Your task to perform on an android device: open app "VLC for Android" Image 0: 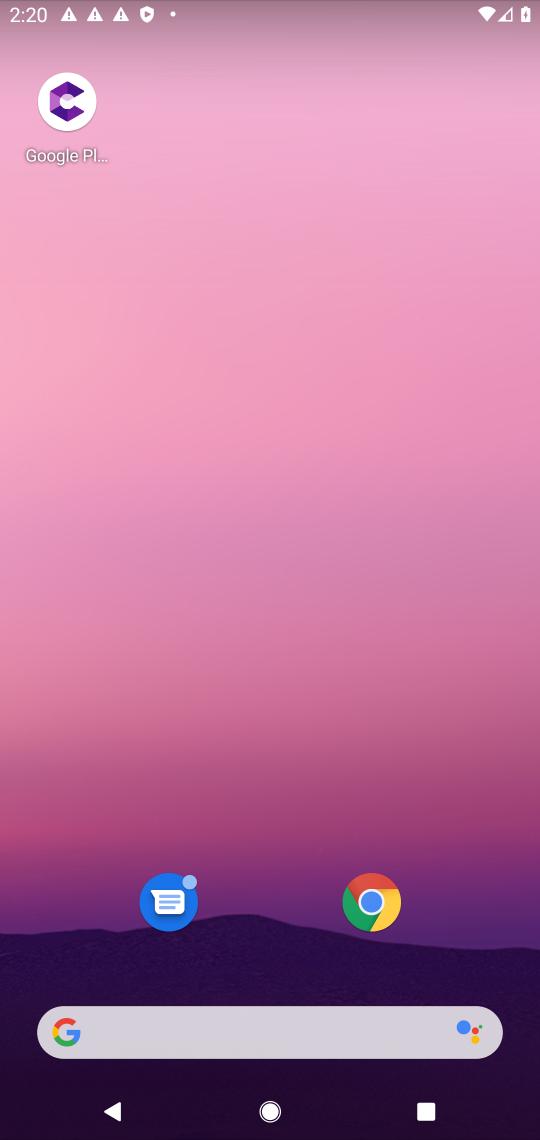
Step 0: drag from (277, 909) to (539, 248)
Your task to perform on an android device: open app "VLC for Android" Image 1: 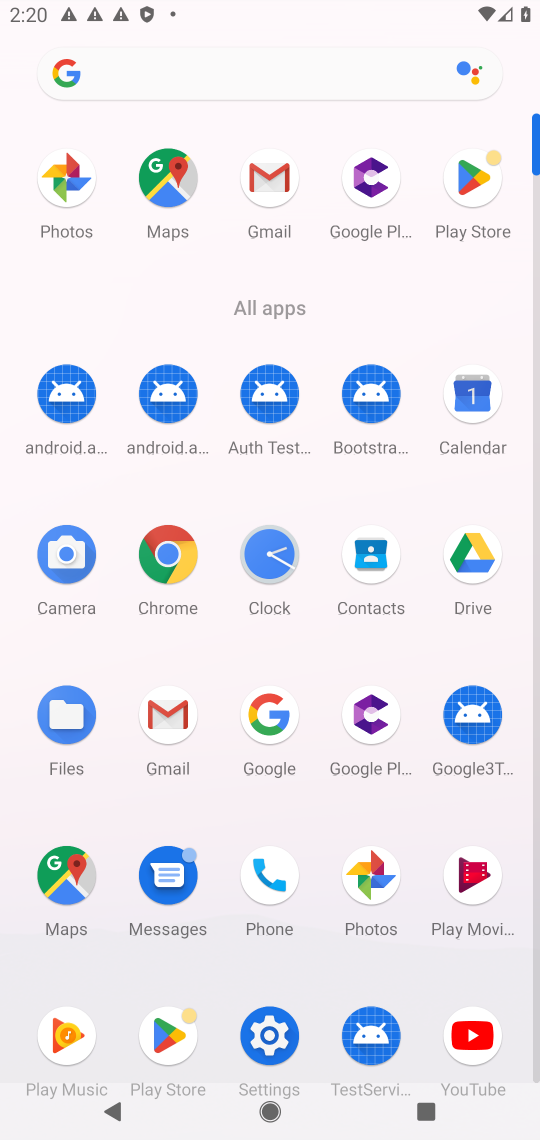
Step 1: click (476, 188)
Your task to perform on an android device: open app "VLC for Android" Image 2: 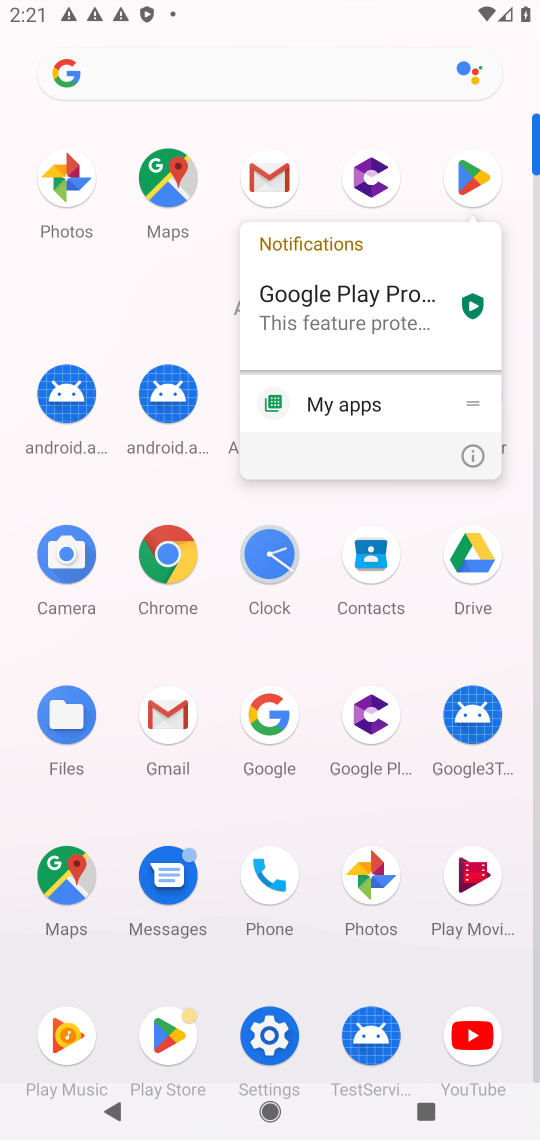
Step 2: click (461, 183)
Your task to perform on an android device: open app "VLC for Android" Image 3: 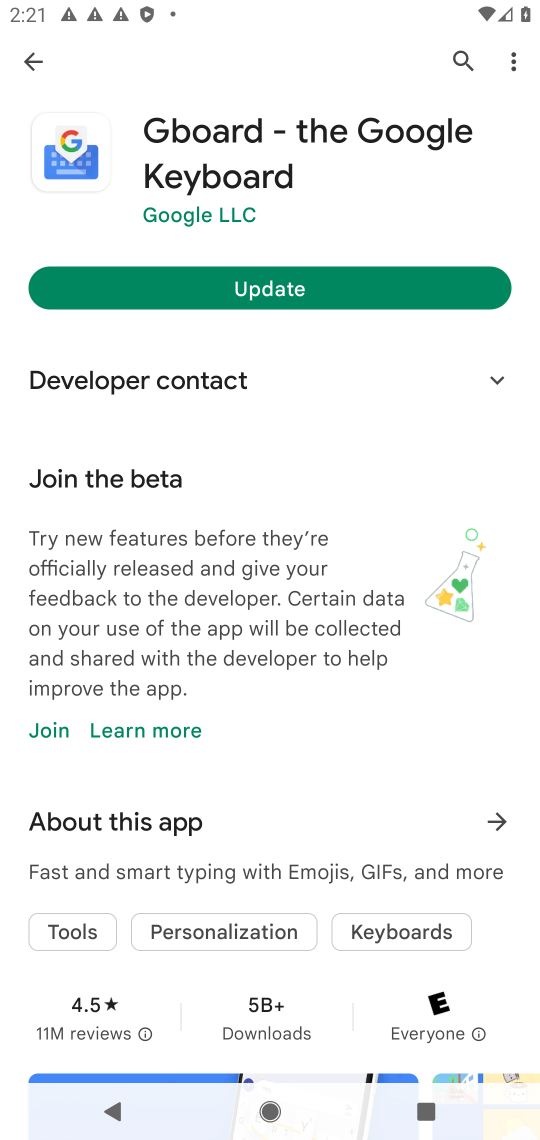
Step 3: click (467, 66)
Your task to perform on an android device: open app "VLC for Android" Image 4: 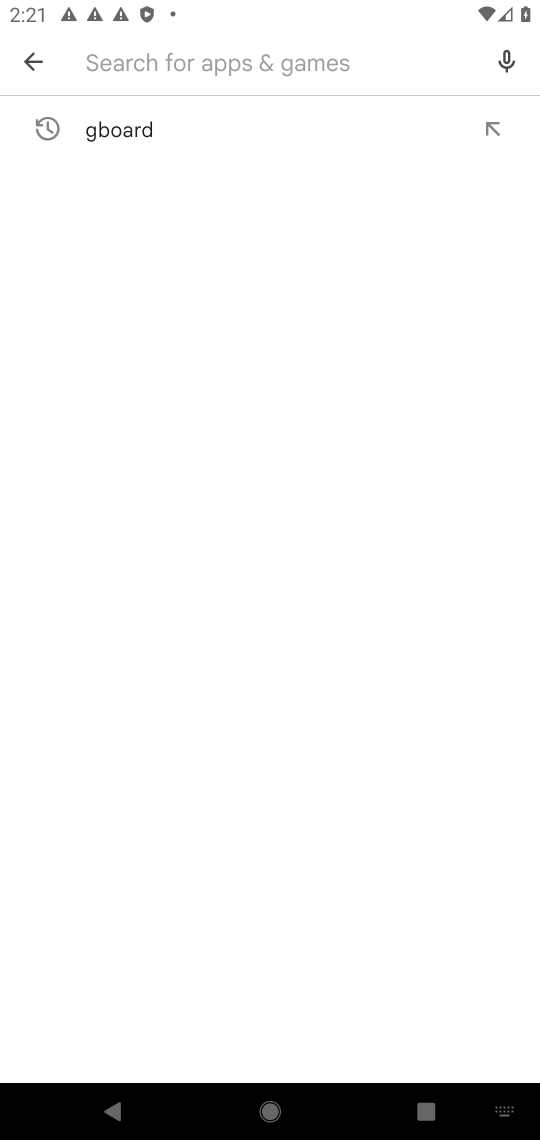
Step 4: type "VLC for android"
Your task to perform on an android device: open app "VLC for Android" Image 5: 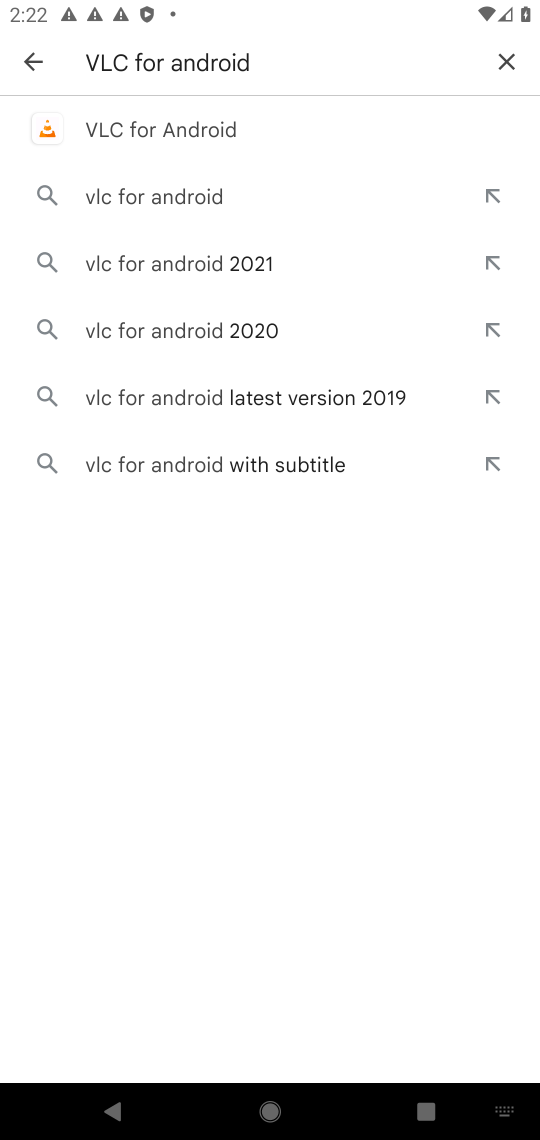
Step 5: click (277, 126)
Your task to perform on an android device: open app "VLC for Android" Image 6: 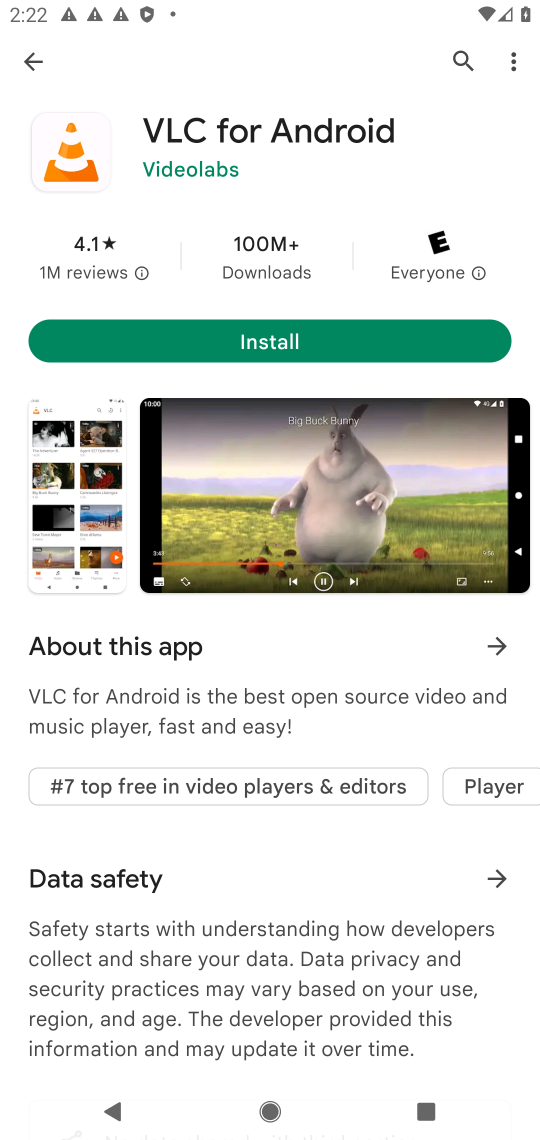
Step 6: task complete